Your task to perform on an android device: read, delete, or share a saved page in the chrome app Image 0: 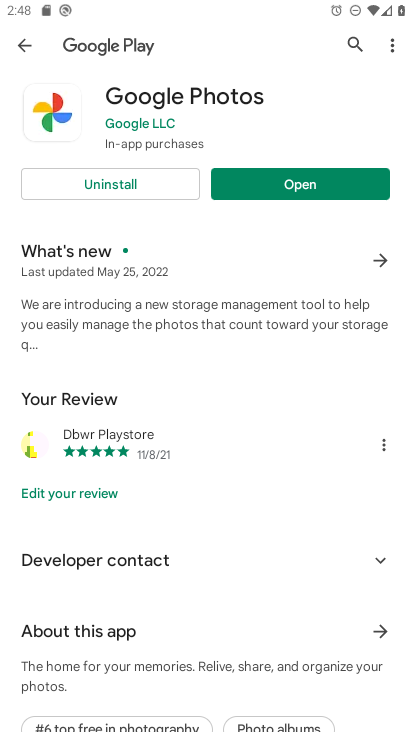
Step 0: press home button
Your task to perform on an android device: read, delete, or share a saved page in the chrome app Image 1: 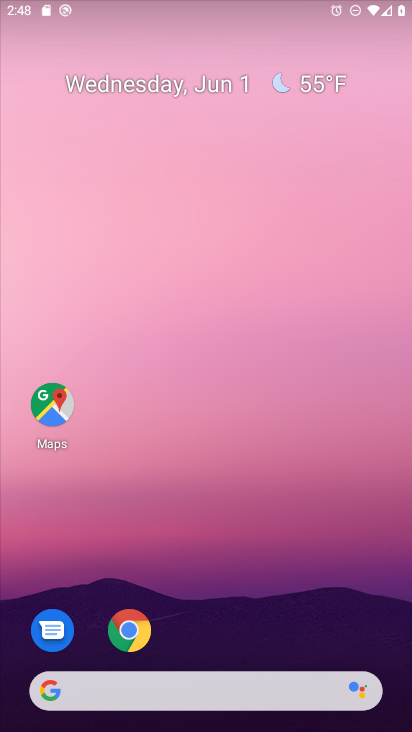
Step 1: drag from (289, 711) to (352, 75)
Your task to perform on an android device: read, delete, or share a saved page in the chrome app Image 2: 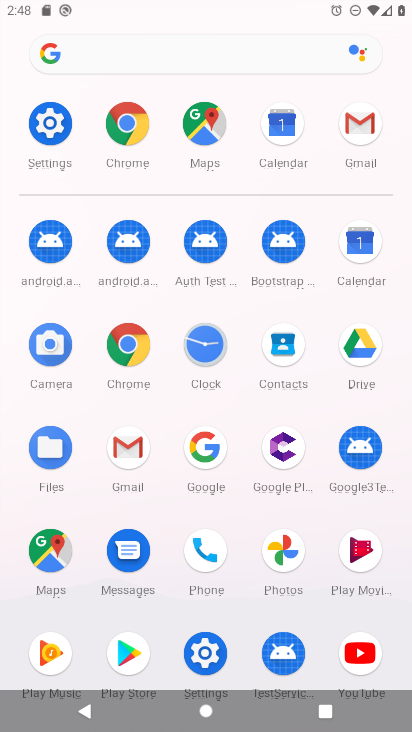
Step 2: click (138, 331)
Your task to perform on an android device: read, delete, or share a saved page in the chrome app Image 3: 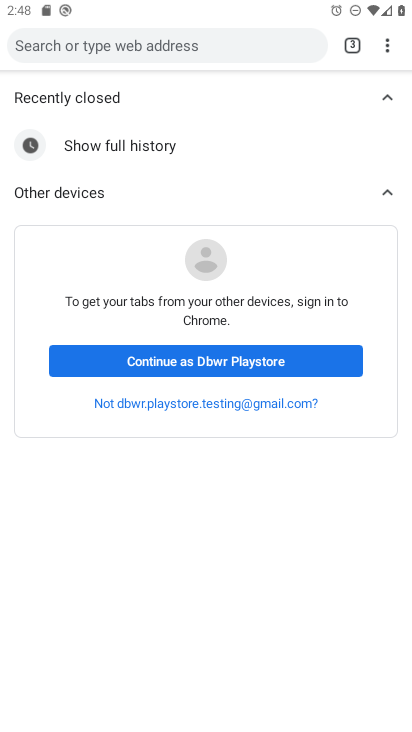
Step 3: drag from (385, 40) to (225, 300)
Your task to perform on an android device: read, delete, or share a saved page in the chrome app Image 4: 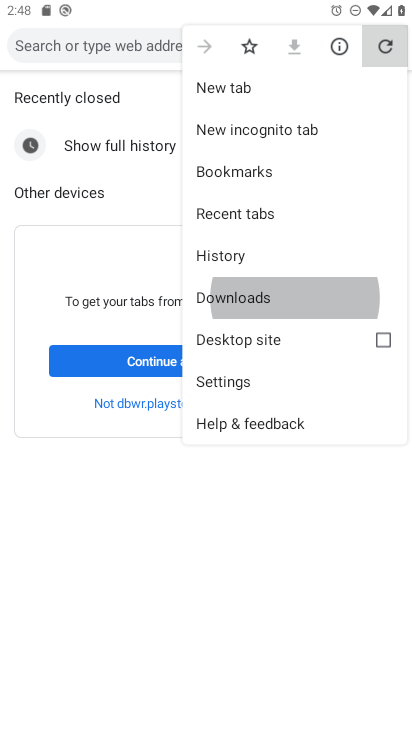
Step 4: click (222, 296)
Your task to perform on an android device: read, delete, or share a saved page in the chrome app Image 5: 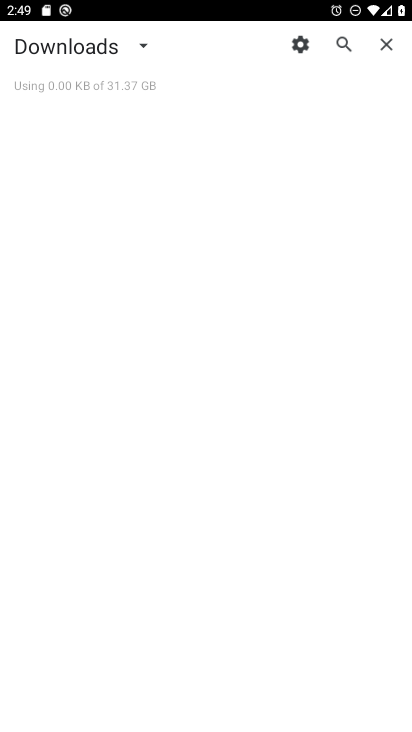
Step 5: task complete